Your task to perform on an android device: Open the map Image 0: 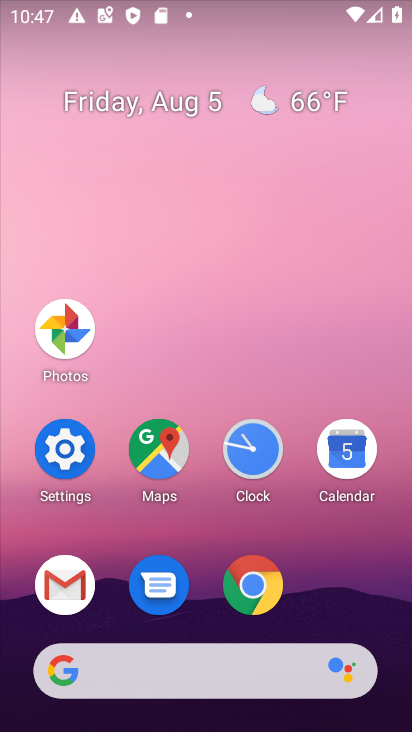
Step 0: click (153, 454)
Your task to perform on an android device: Open the map Image 1: 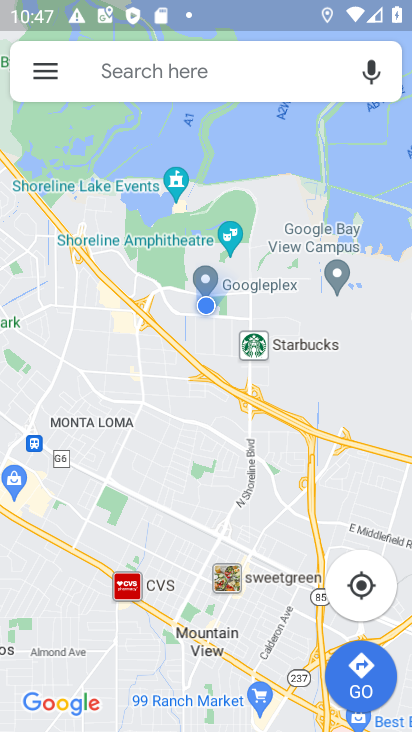
Step 1: task complete